Your task to perform on an android device: Go to internet settings Image 0: 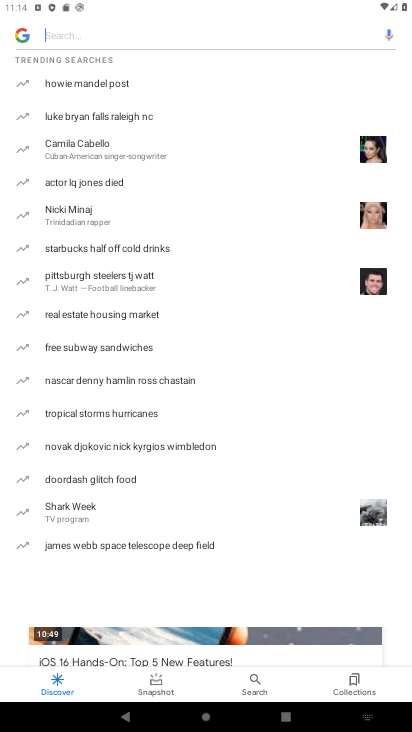
Step 0: press home button
Your task to perform on an android device: Go to internet settings Image 1: 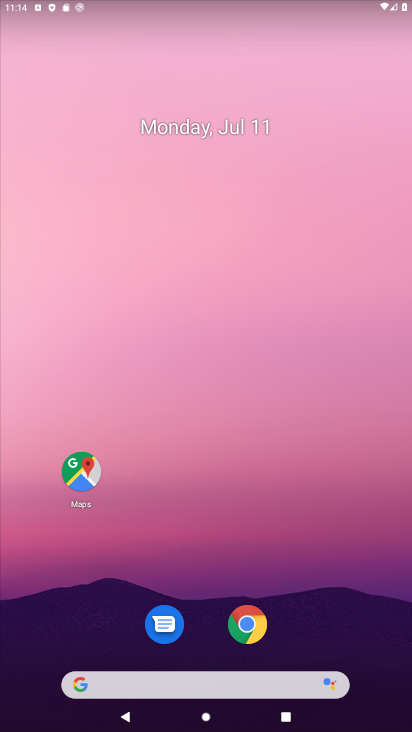
Step 1: drag from (195, 605) to (206, 218)
Your task to perform on an android device: Go to internet settings Image 2: 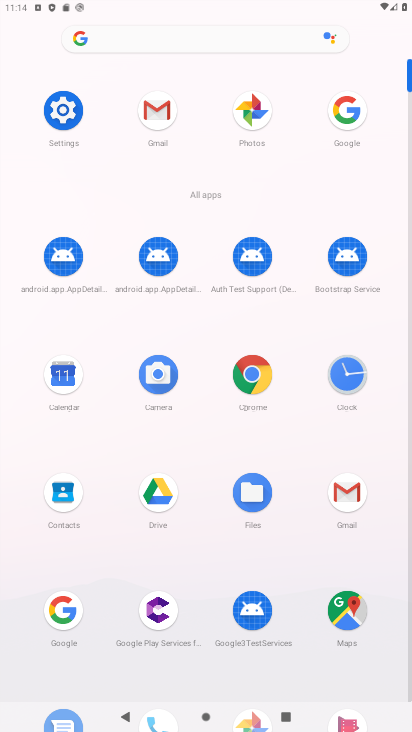
Step 2: click (82, 121)
Your task to perform on an android device: Go to internet settings Image 3: 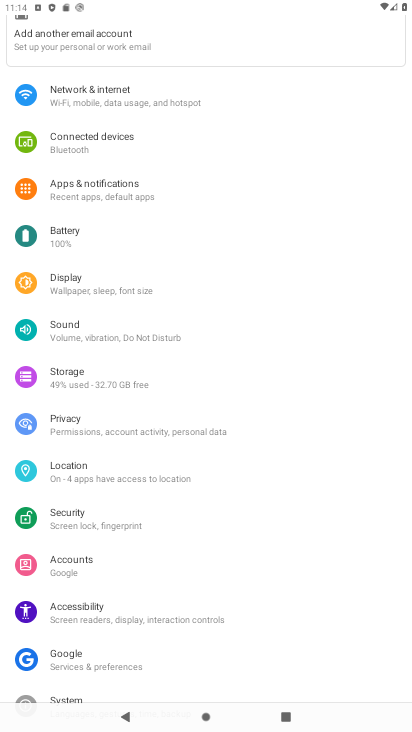
Step 3: click (146, 110)
Your task to perform on an android device: Go to internet settings Image 4: 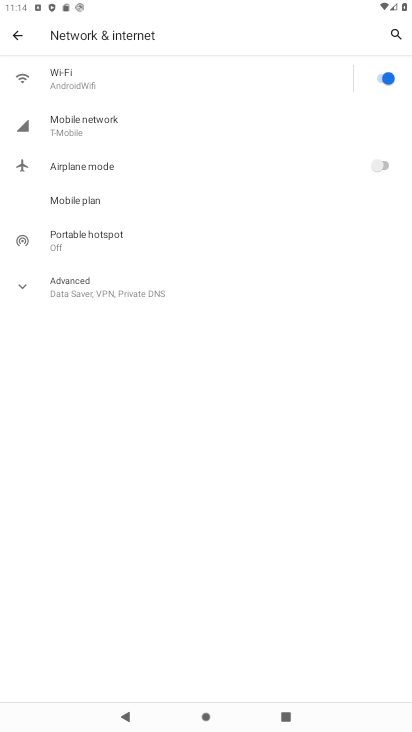
Step 4: task complete